Your task to perform on an android device: open app "Microsoft Authenticator" (install if not already installed) and enter user name: "Cornell@yahoo.com" and password: "bothersome" Image 0: 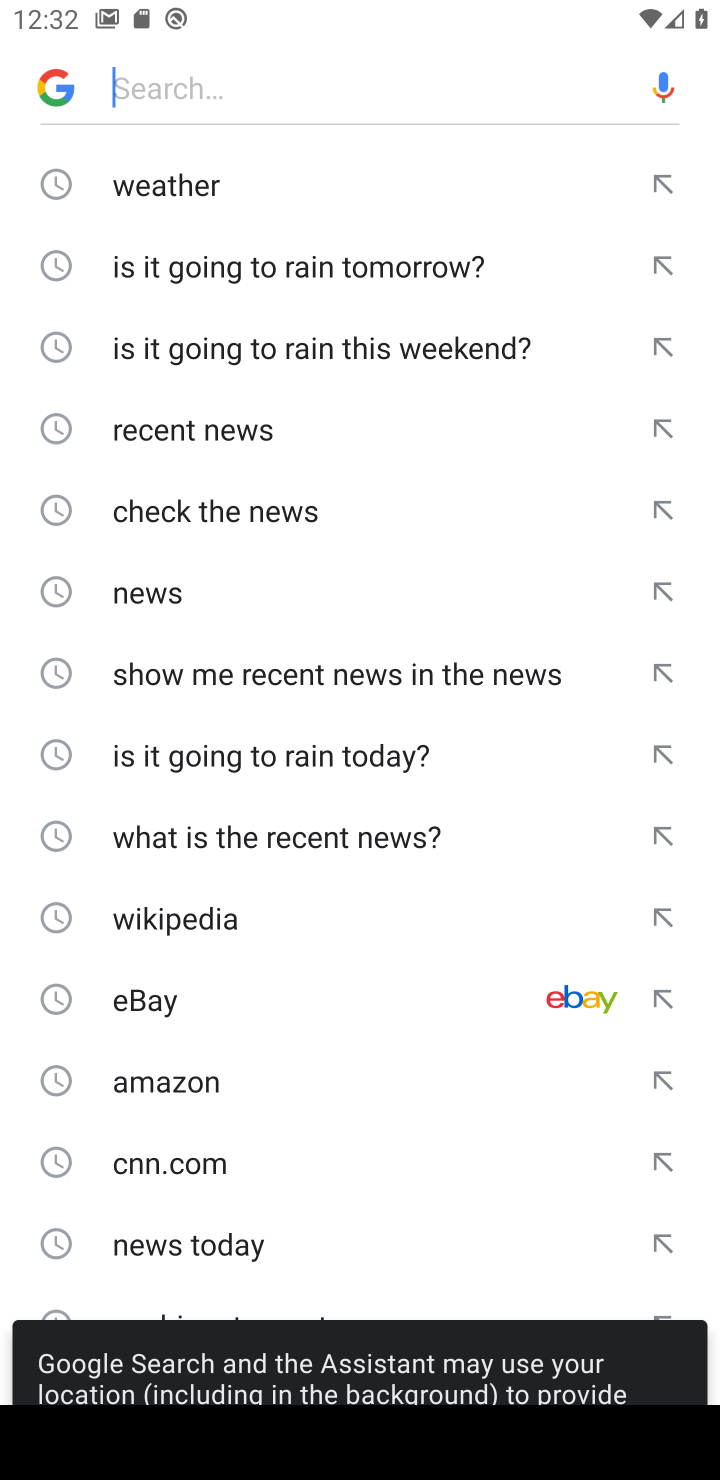
Step 0: press home button
Your task to perform on an android device: open app "Microsoft Authenticator" (install if not already installed) and enter user name: "Cornell@yahoo.com" and password: "bothersome" Image 1: 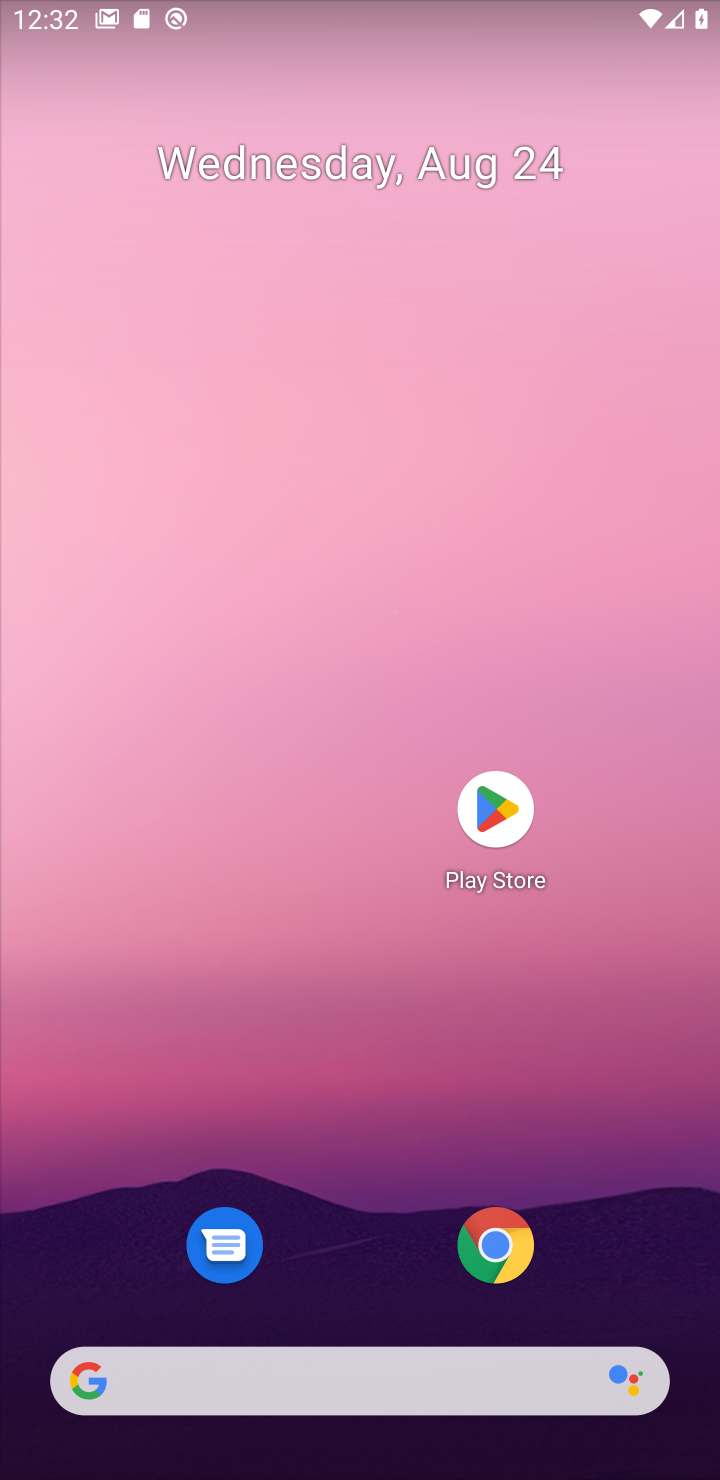
Step 1: click (499, 809)
Your task to perform on an android device: open app "Microsoft Authenticator" (install if not already installed) and enter user name: "Cornell@yahoo.com" and password: "bothersome" Image 2: 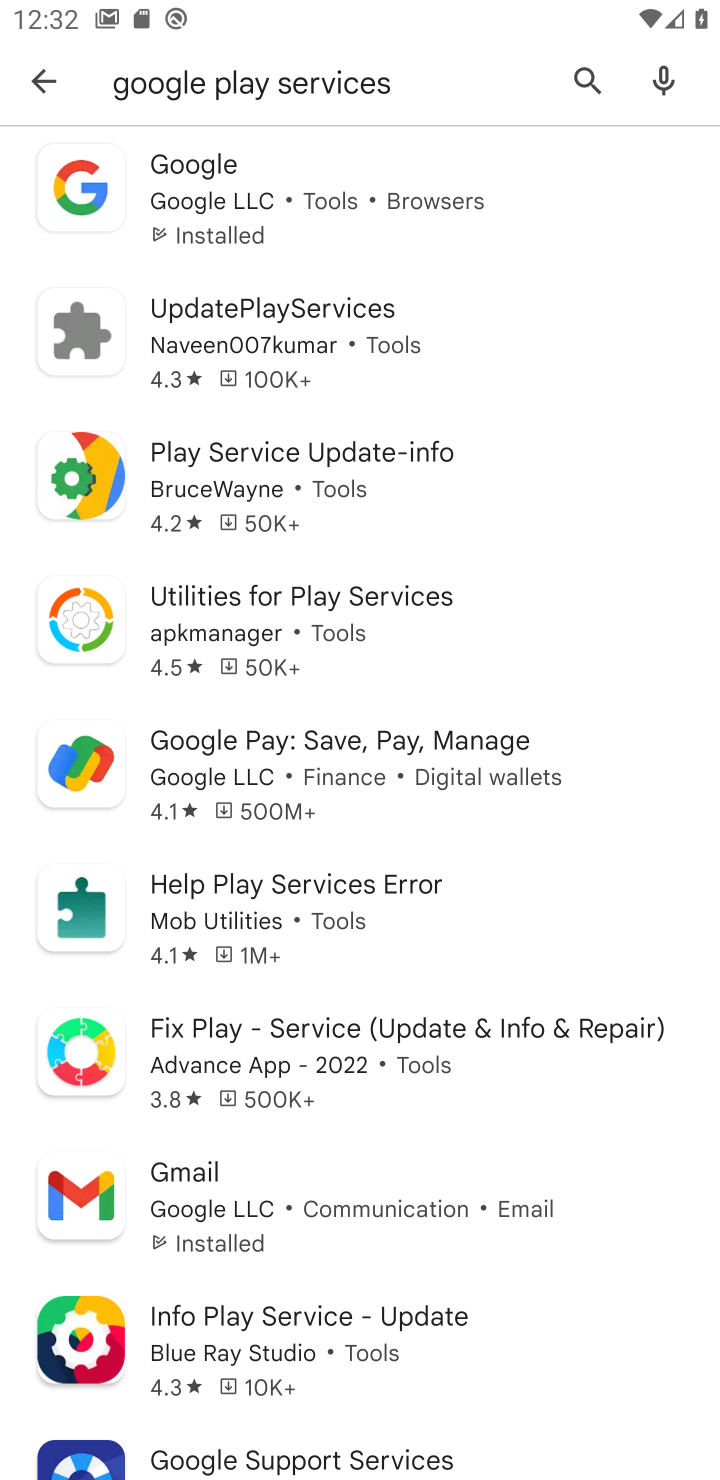
Step 2: click (583, 71)
Your task to perform on an android device: open app "Microsoft Authenticator" (install if not already installed) and enter user name: "Cornell@yahoo.com" and password: "bothersome" Image 3: 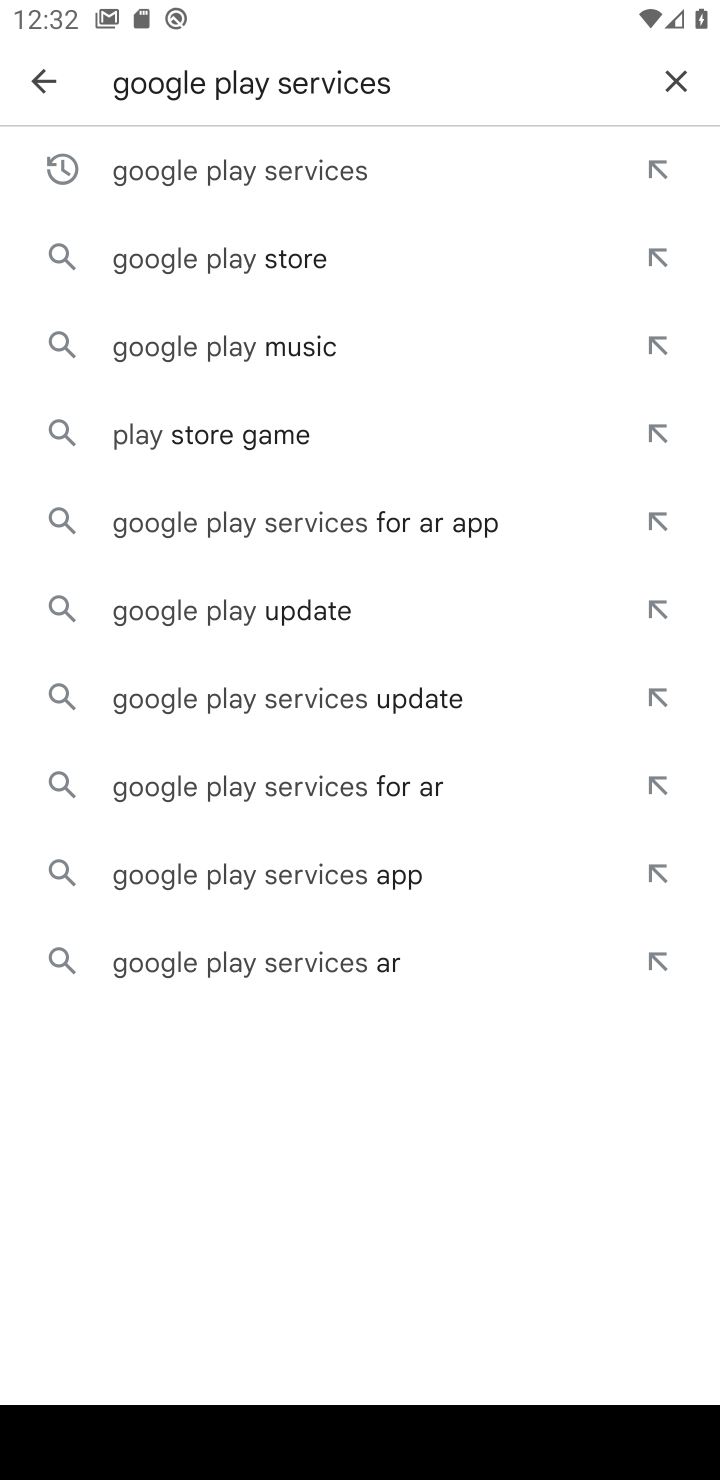
Step 3: click (685, 71)
Your task to perform on an android device: open app "Microsoft Authenticator" (install if not already installed) and enter user name: "Cornell@yahoo.com" and password: "bothersome" Image 4: 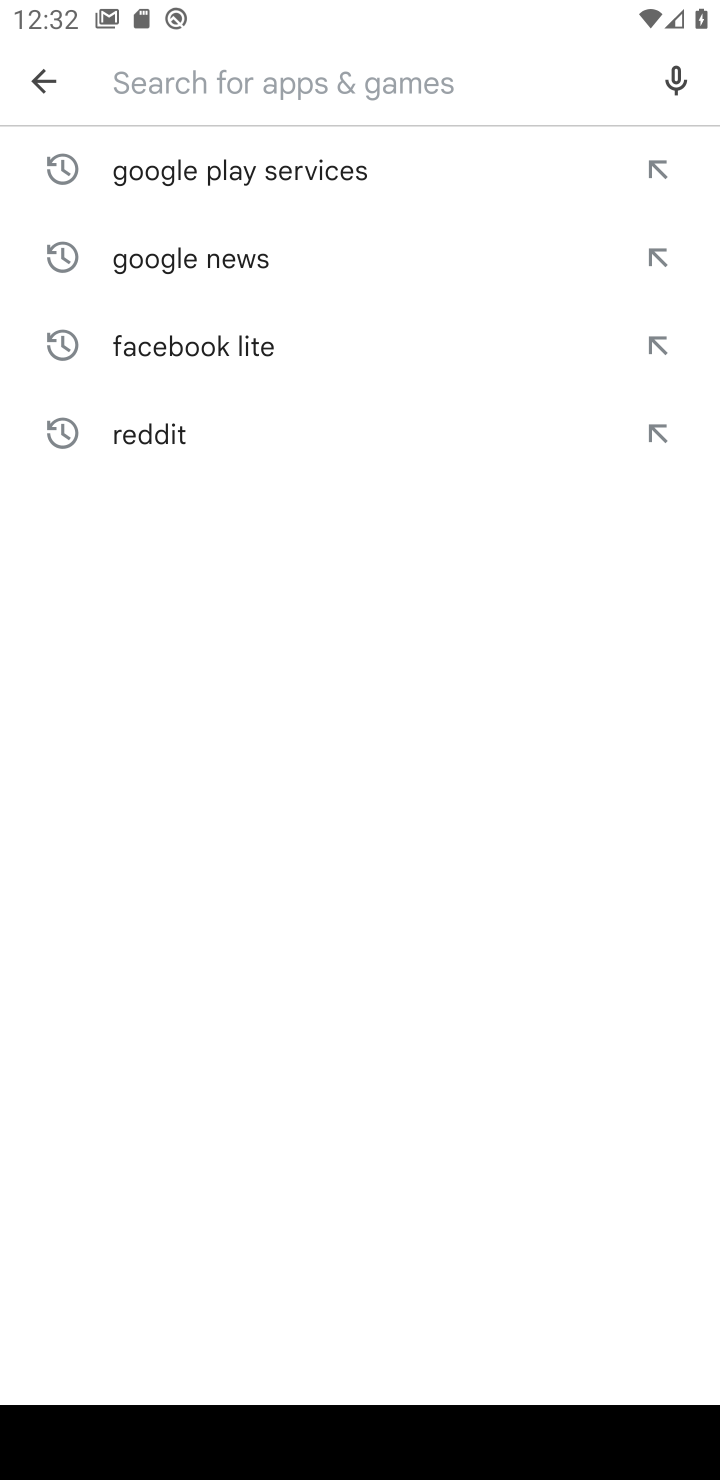
Step 4: type "Microsoft Authenticator"
Your task to perform on an android device: open app "Microsoft Authenticator" (install if not already installed) and enter user name: "Cornell@yahoo.com" and password: "bothersome" Image 5: 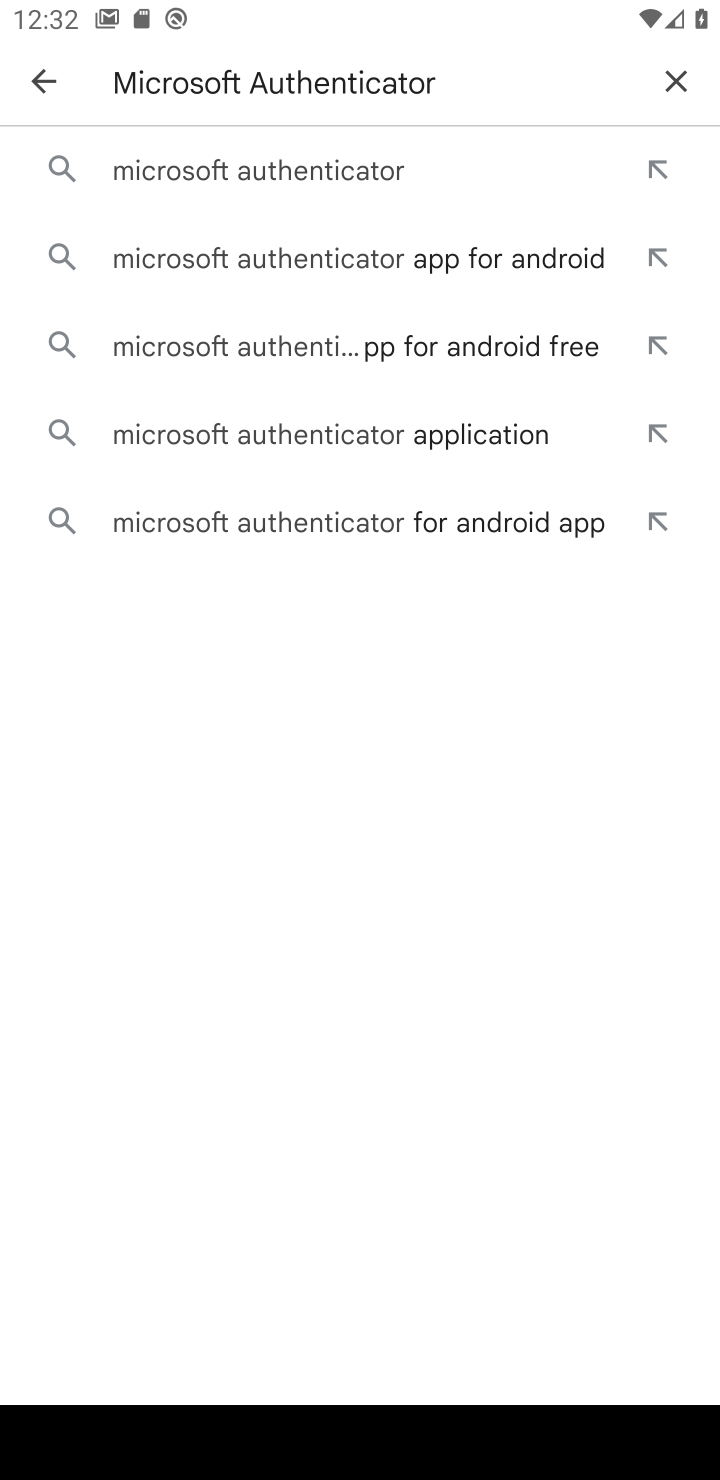
Step 5: click (327, 158)
Your task to perform on an android device: open app "Microsoft Authenticator" (install if not already installed) and enter user name: "Cornell@yahoo.com" and password: "bothersome" Image 6: 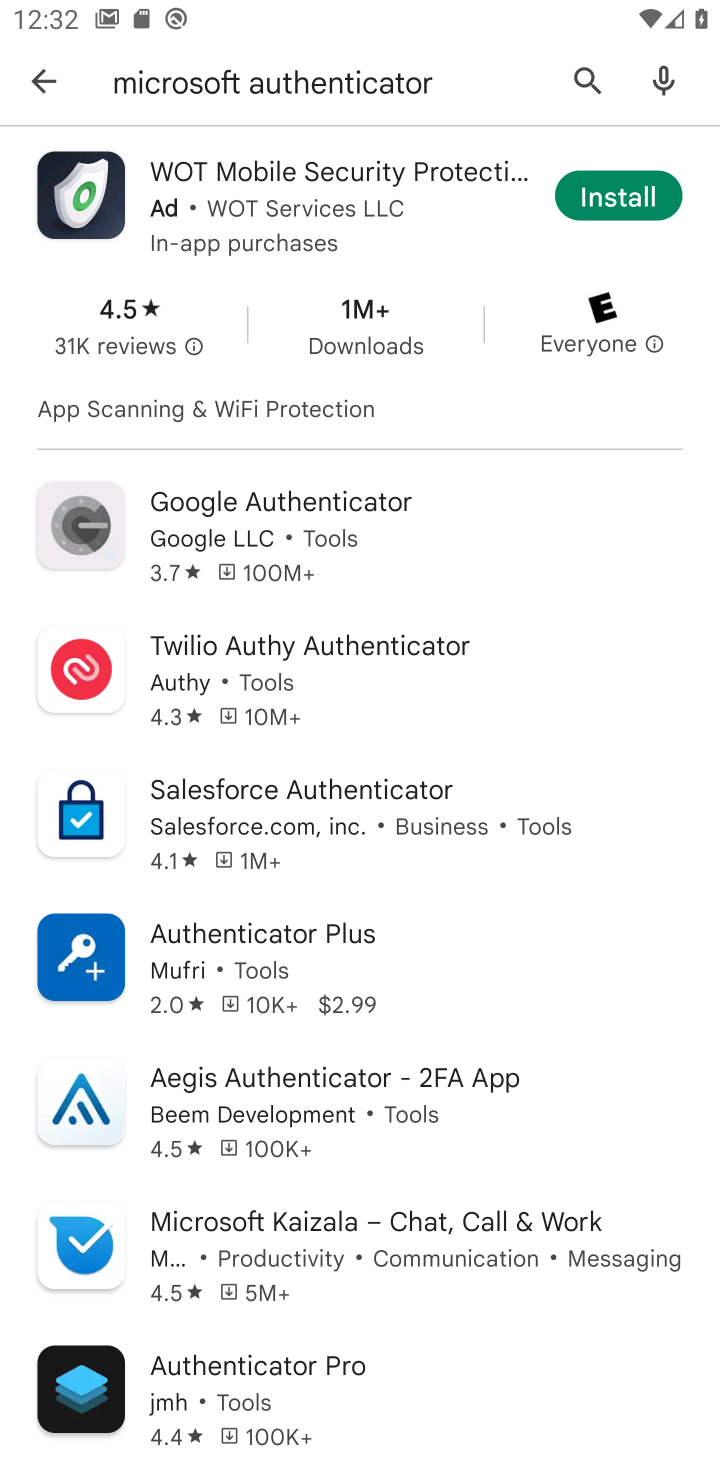
Step 6: click (629, 198)
Your task to perform on an android device: open app "Microsoft Authenticator" (install if not already installed) and enter user name: "Cornell@yahoo.com" and password: "bothersome" Image 7: 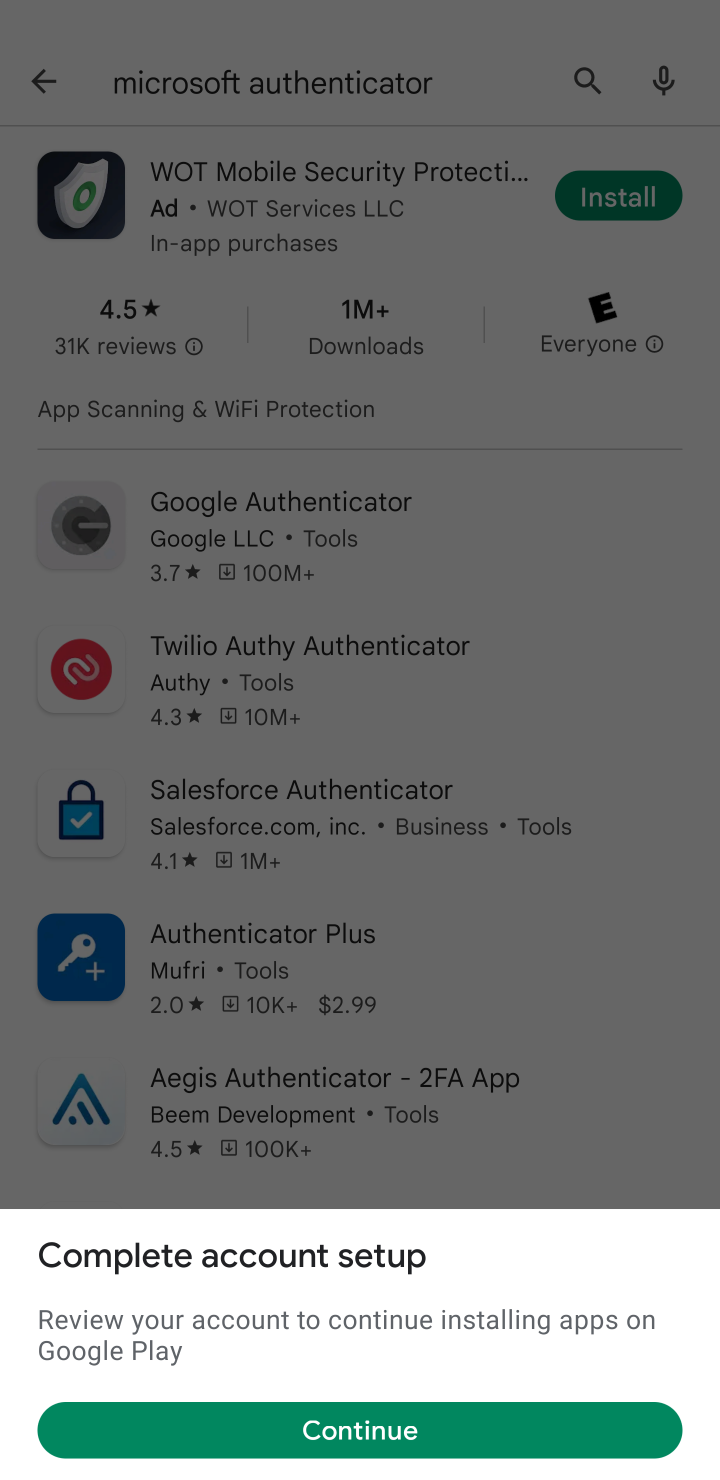
Step 7: task complete